Your task to perform on an android device: What's the weather? Image 0: 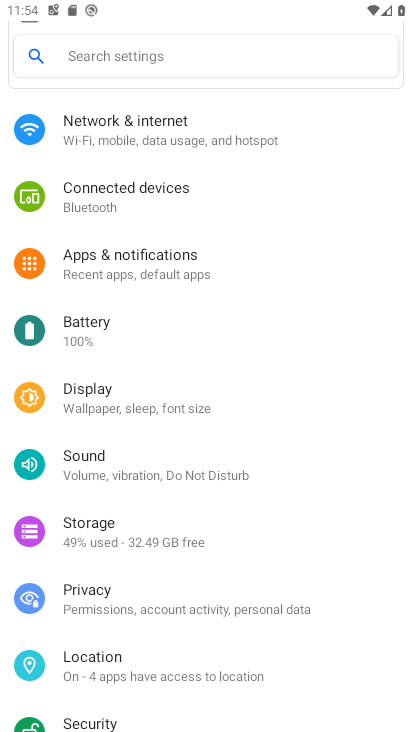
Step 0: press home button
Your task to perform on an android device: What's the weather? Image 1: 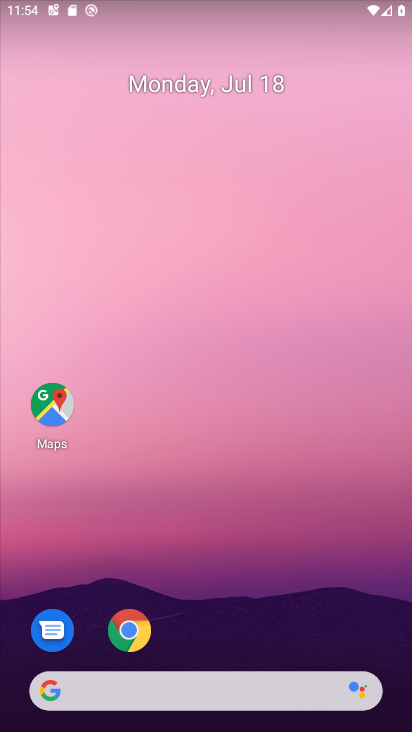
Step 1: click (196, 689)
Your task to perform on an android device: What's the weather? Image 2: 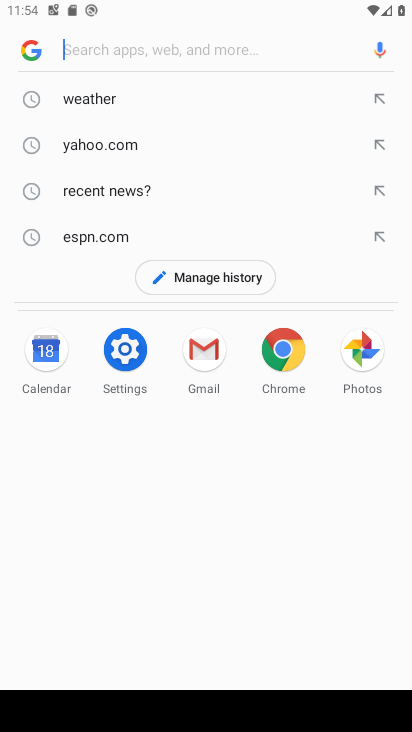
Step 2: click (69, 94)
Your task to perform on an android device: What's the weather? Image 3: 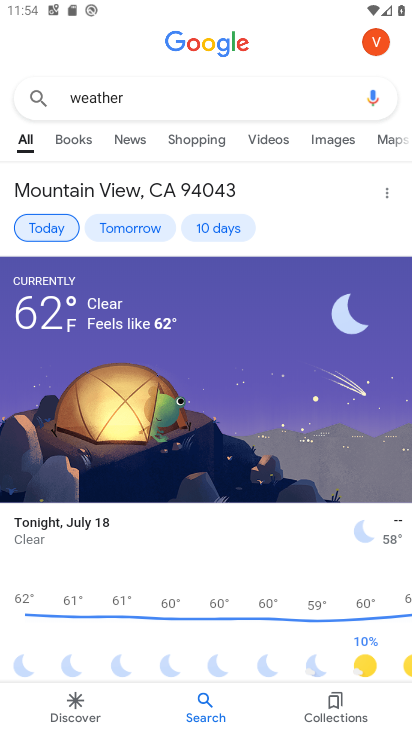
Step 3: task complete